Your task to perform on an android device: open sync settings in chrome Image 0: 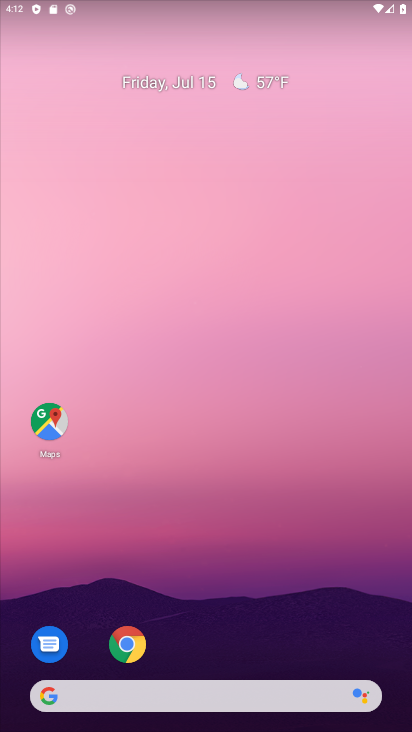
Step 0: click (123, 646)
Your task to perform on an android device: open sync settings in chrome Image 1: 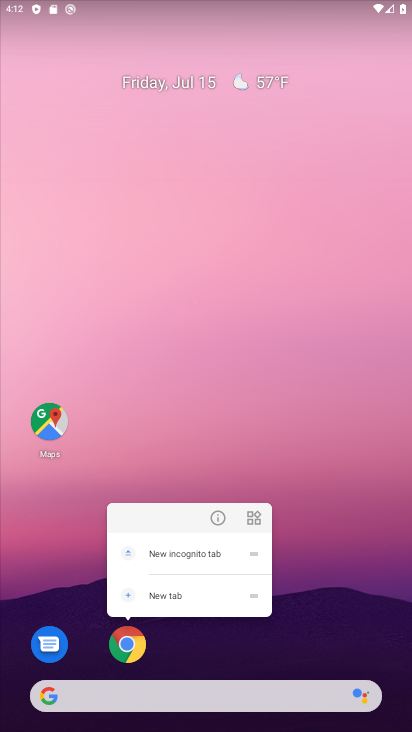
Step 1: click (124, 646)
Your task to perform on an android device: open sync settings in chrome Image 2: 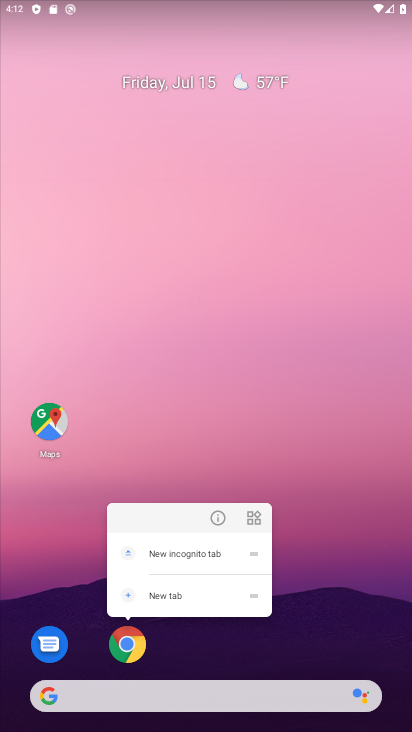
Step 2: click (125, 644)
Your task to perform on an android device: open sync settings in chrome Image 3: 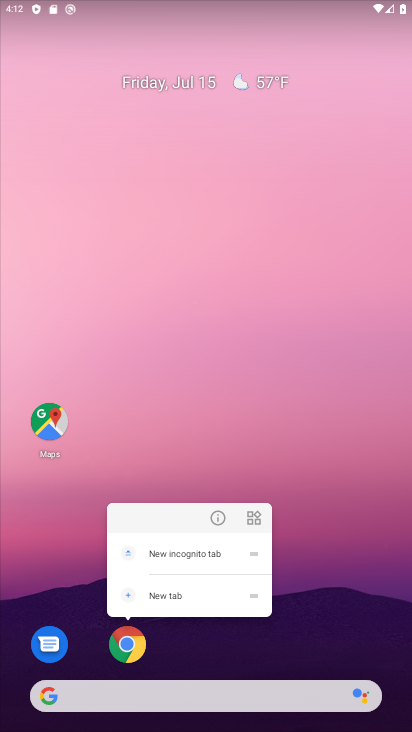
Step 3: click (132, 644)
Your task to perform on an android device: open sync settings in chrome Image 4: 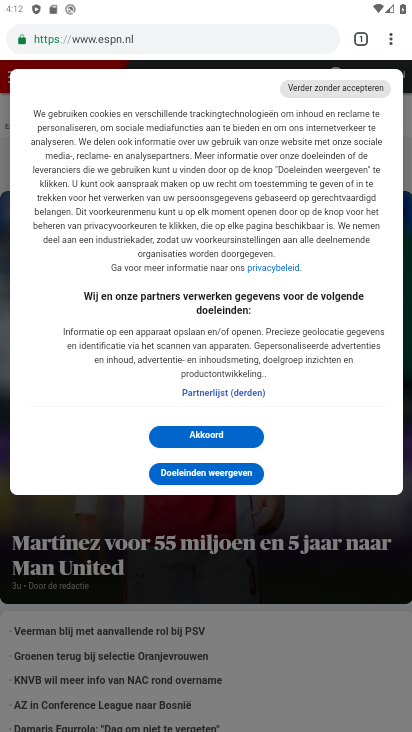
Step 4: click (387, 37)
Your task to perform on an android device: open sync settings in chrome Image 5: 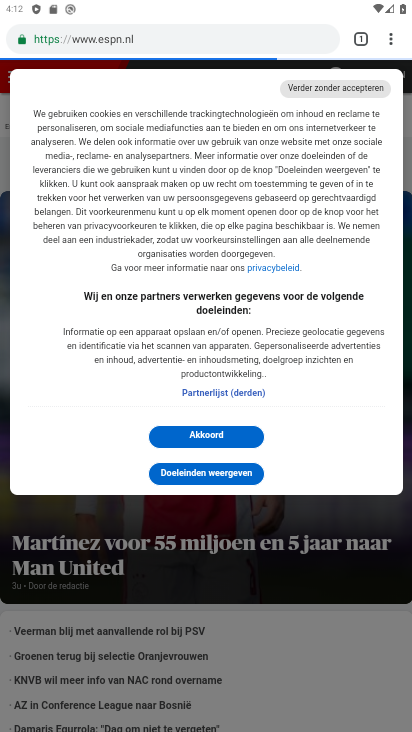
Step 5: click (391, 43)
Your task to perform on an android device: open sync settings in chrome Image 6: 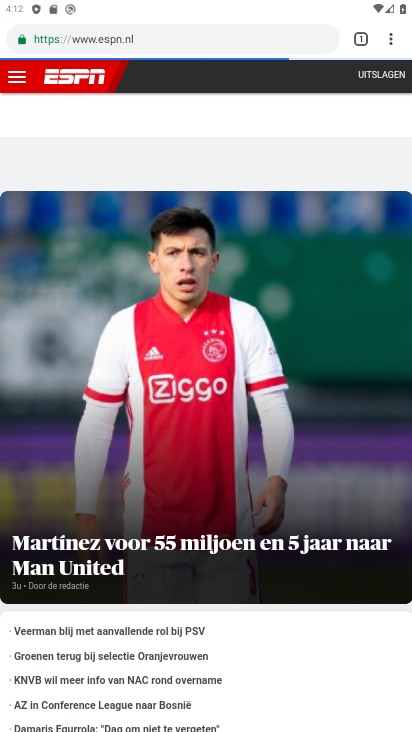
Step 6: click (390, 41)
Your task to perform on an android device: open sync settings in chrome Image 7: 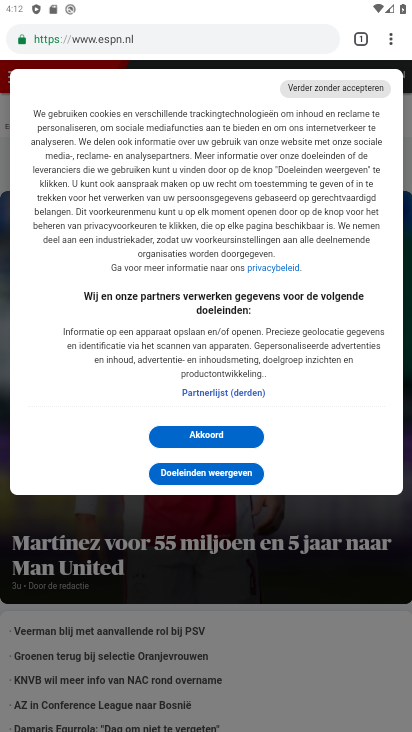
Step 7: click (394, 43)
Your task to perform on an android device: open sync settings in chrome Image 8: 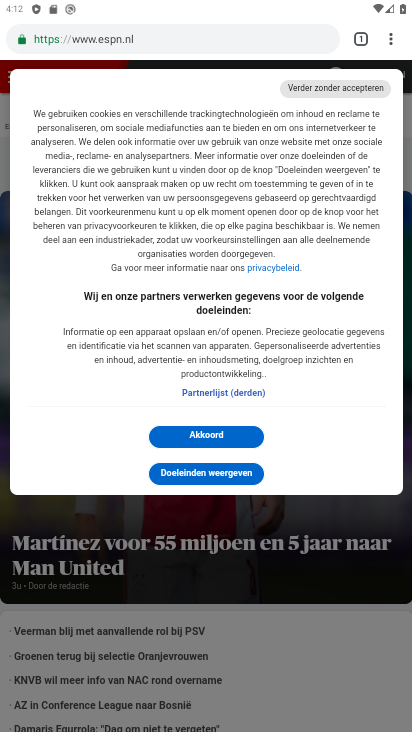
Step 8: click (388, 37)
Your task to perform on an android device: open sync settings in chrome Image 9: 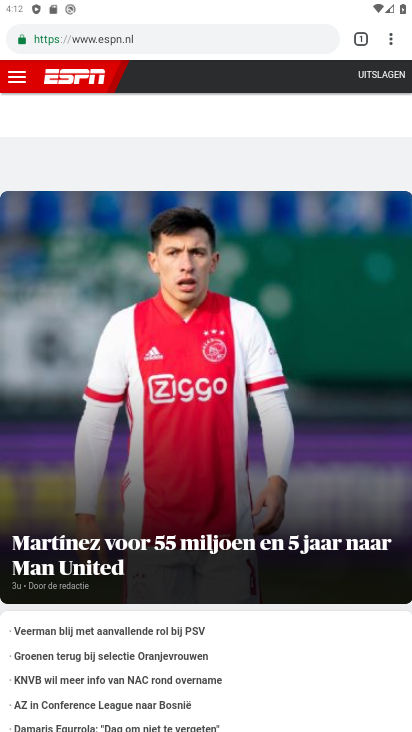
Step 9: click (387, 40)
Your task to perform on an android device: open sync settings in chrome Image 10: 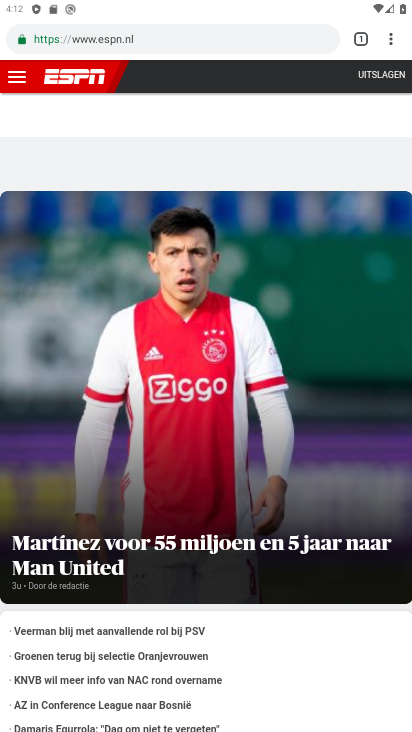
Step 10: click (388, 40)
Your task to perform on an android device: open sync settings in chrome Image 11: 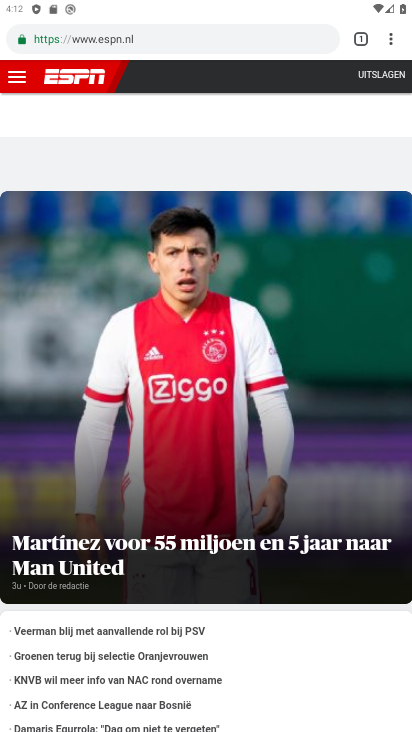
Step 11: click (387, 38)
Your task to perform on an android device: open sync settings in chrome Image 12: 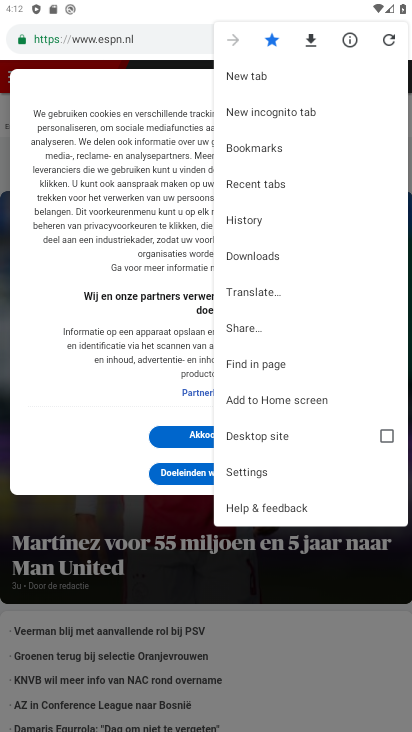
Step 12: click (241, 471)
Your task to perform on an android device: open sync settings in chrome Image 13: 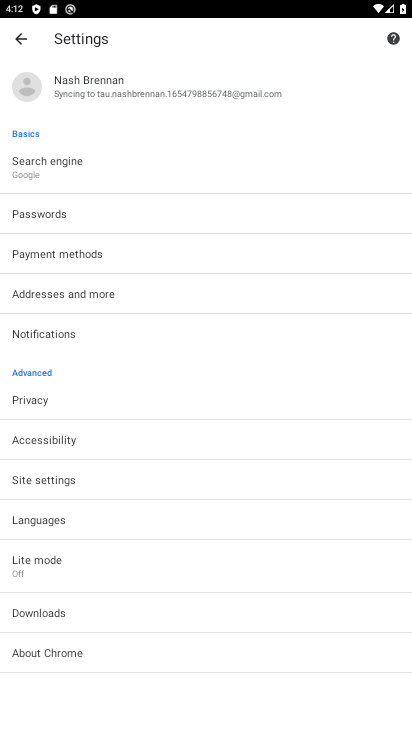
Step 13: click (67, 87)
Your task to perform on an android device: open sync settings in chrome Image 14: 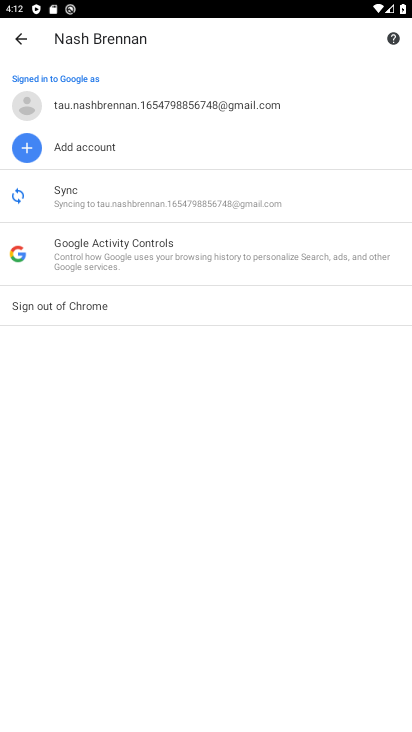
Step 14: click (80, 209)
Your task to perform on an android device: open sync settings in chrome Image 15: 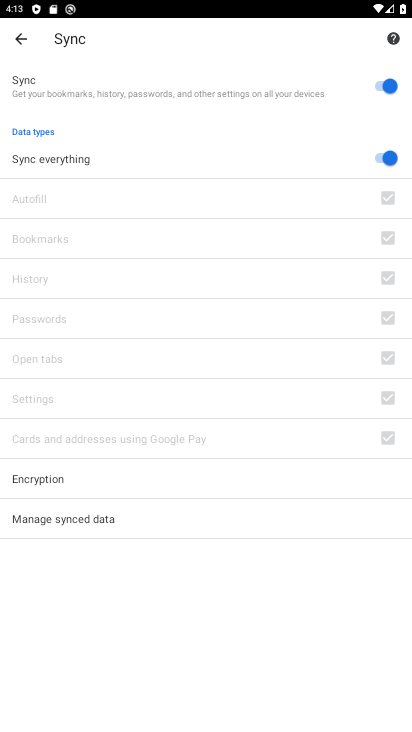
Step 15: task complete